Your task to perform on an android device: Check the weather Image 0: 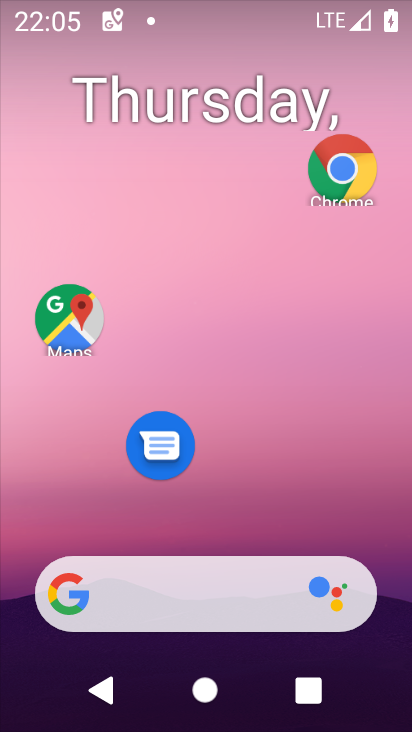
Step 0: click (204, 217)
Your task to perform on an android device: Check the weather Image 1: 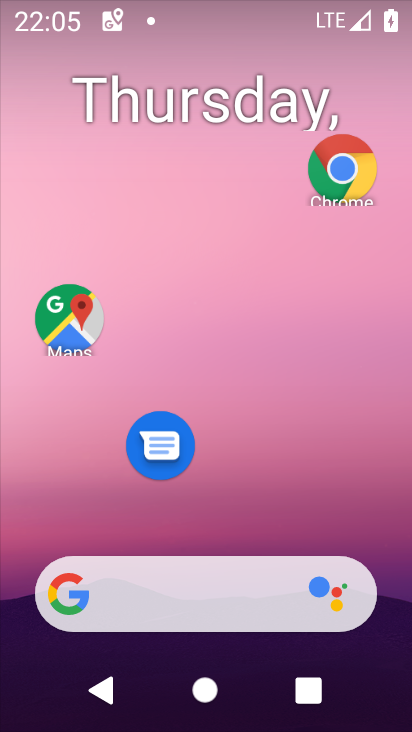
Step 1: drag from (234, 511) to (202, 167)
Your task to perform on an android device: Check the weather Image 2: 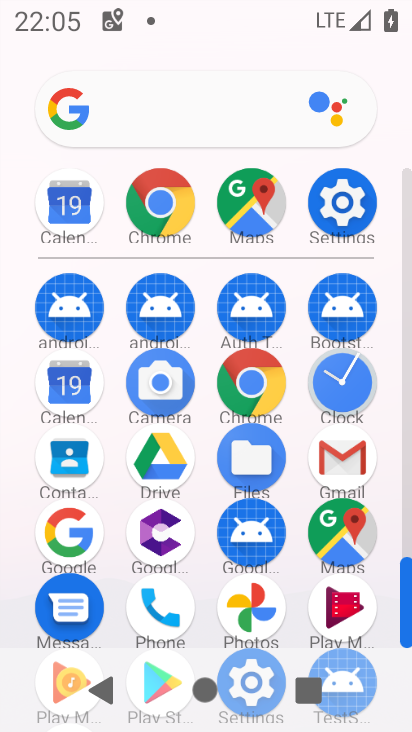
Step 2: click (159, 115)
Your task to perform on an android device: Check the weather Image 3: 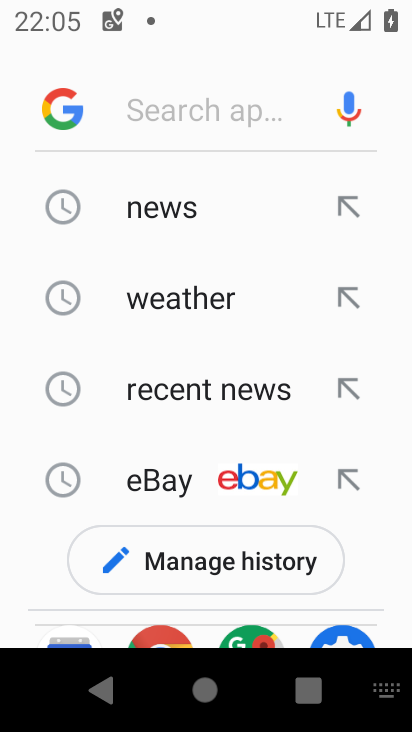
Step 3: click (156, 289)
Your task to perform on an android device: Check the weather Image 4: 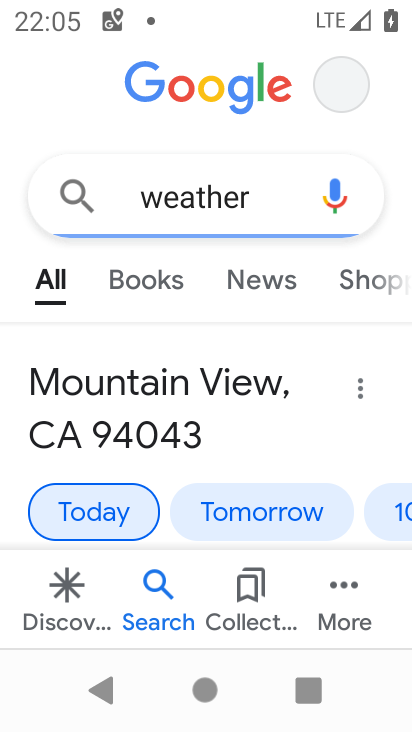
Step 4: task complete